Your task to perform on an android device: Do I have any events this weekend? Image 0: 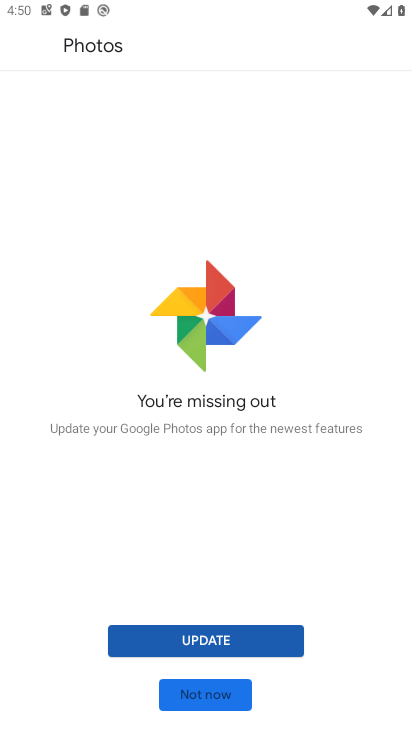
Step 0: press home button
Your task to perform on an android device: Do I have any events this weekend? Image 1: 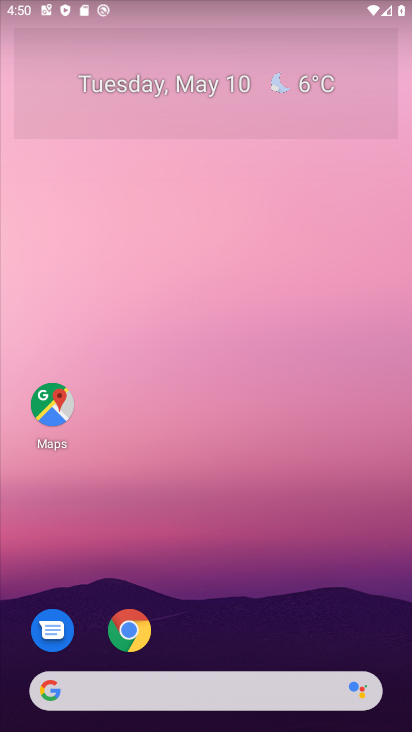
Step 1: drag from (261, 551) to (263, 97)
Your task to perform on an android device: Do I have any events this weekend? Image 2: 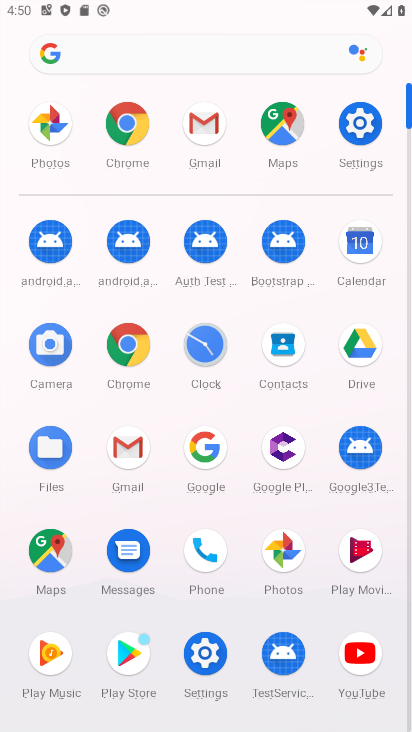
Step 2: click (357, 239)
Your task to perform on an android device: Do I have any events this weekend? Image 3: 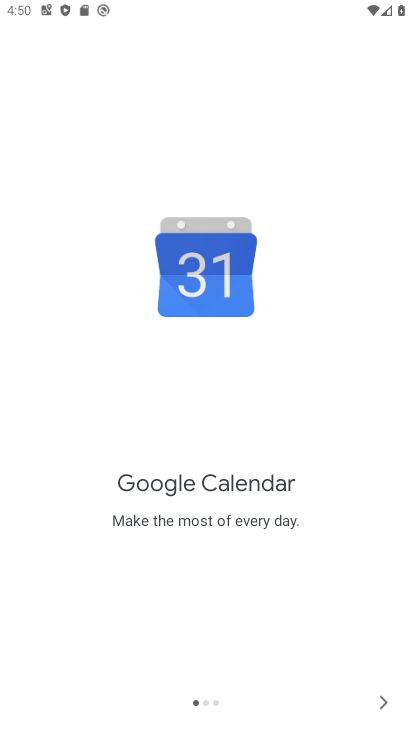
Step 3: drag from (319, 359) to (0, 400)
Your task to perform on an android device: Do I have any events this weekend? Image 4: 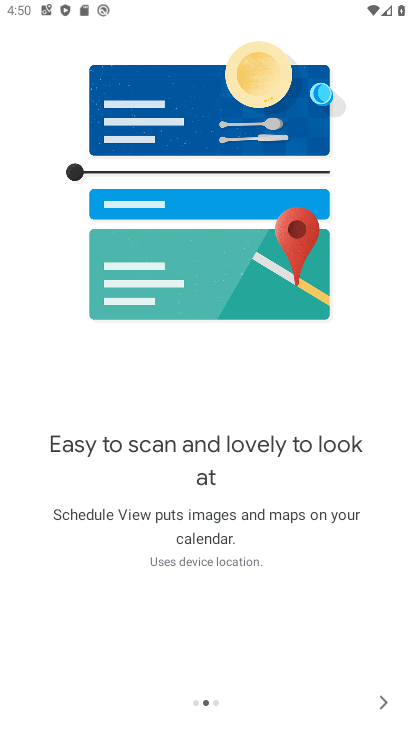
Step 4: drag from (261, 379) to (2, 454)
Your task to perform on an android device: Do I have any events this weekend? Image 5: 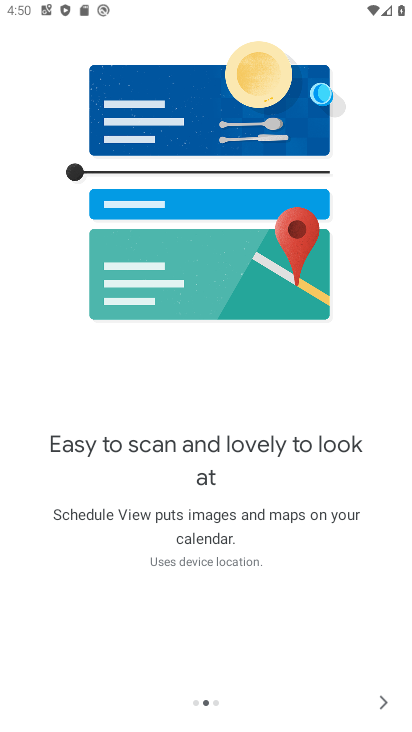
Step 5: drag from (330, 500) to (54, 488)
Your task to perform on an android device: Do I have any events this weekend? Image 6: 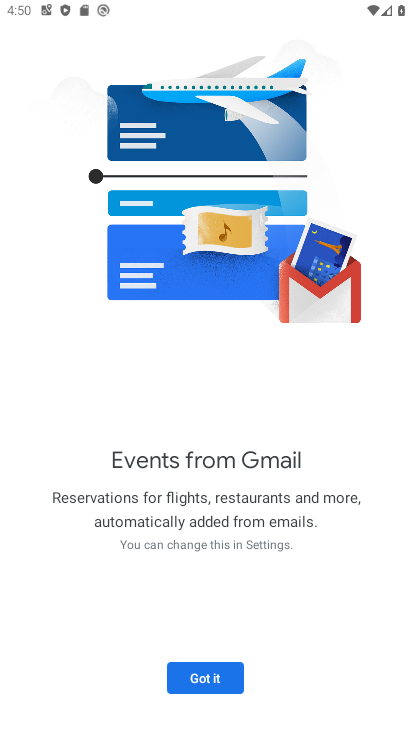
Step 6: click (217, 681)
Your task to perform on an android device: Do I have any events this weekend? Image 7: 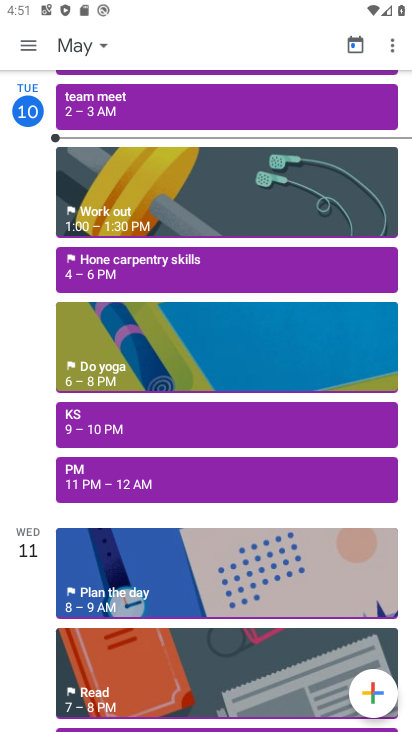
Step 7: click (22, 44)
Your task to perform on an android device: Do I have any events this weekend? Image 8: 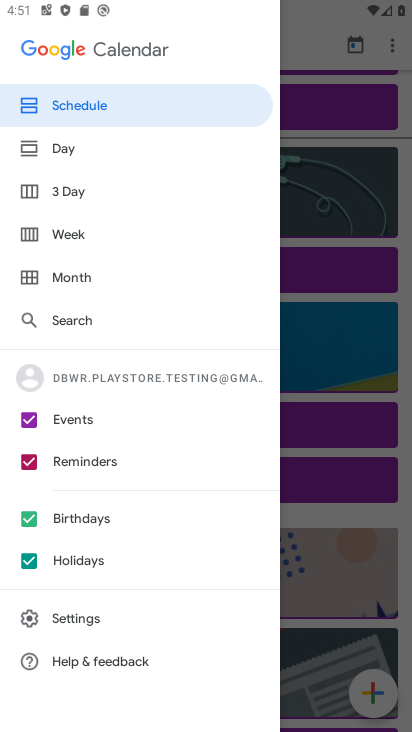
Step 8: click (60, 235)
Your task to perform on an android device: Do I have any events this weekend? Image 9: 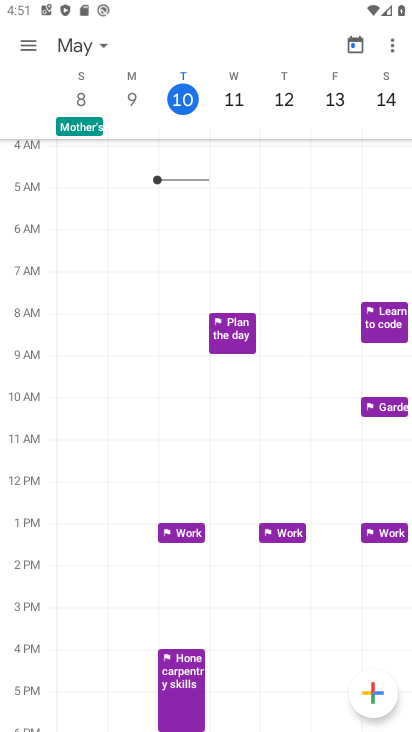
Step 9: task complete